Your task to perform on an android device: toggle notifications settings in the gmail app Image 0: 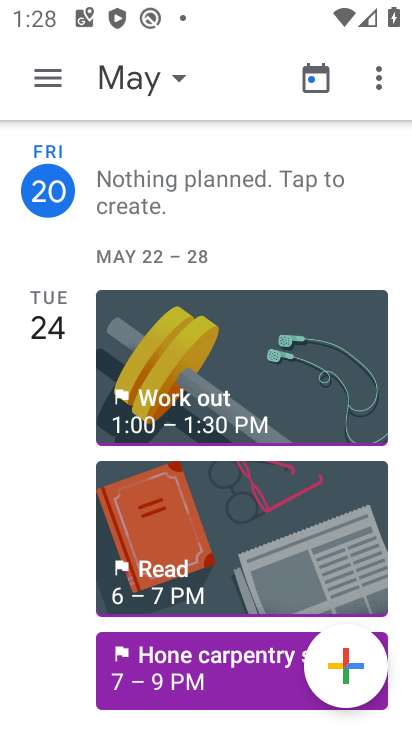
Step 0: drag from (384, 568) to (365, 314)
Your task to perform on an android device: toggle notifications settings in the gmail app Image 1: 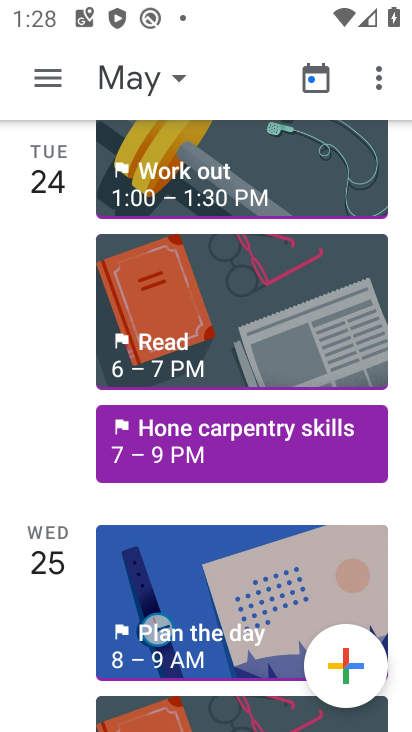
Step 1: press home button
Your task to perform on an android device: toggle notifications settings in the gmail app Image 2: 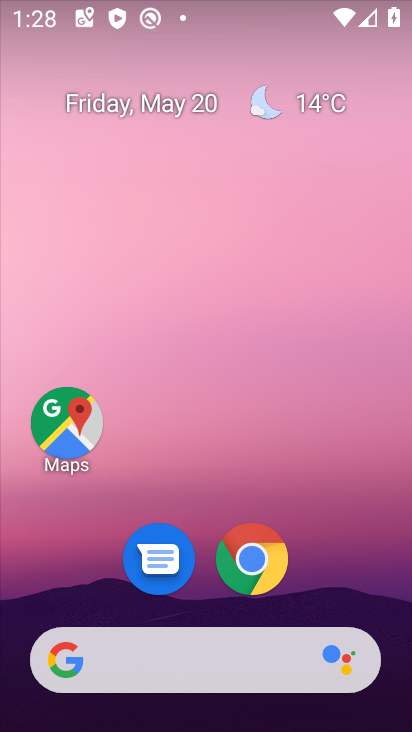
Step 2: drag from (374, 562) to (312, 133)
Your task to perform on an android device: toggle notifications settings in the gmail app Image 3: 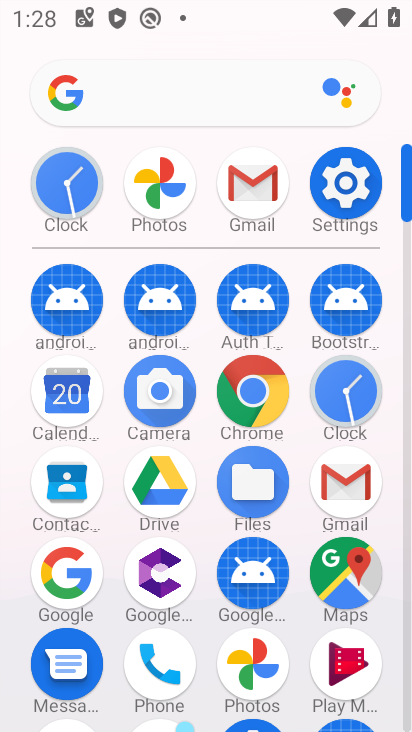
Step 3: click (271, 188)
Your task to perform on an android device: toggle notifications settings in the gmail app Image 4: 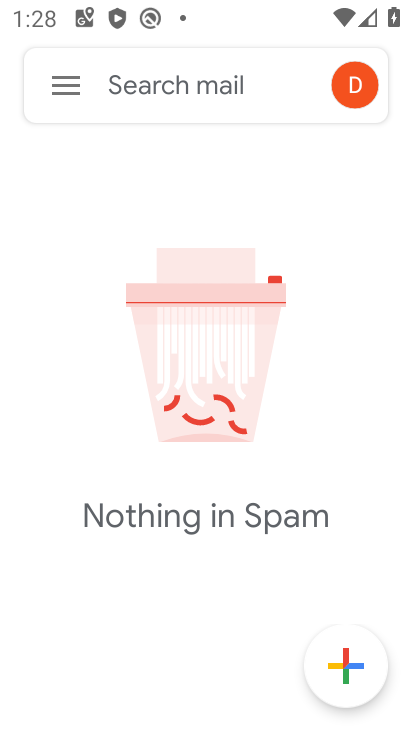
Step 4: click (77, 83)
Your task to perform on an android device: toggle notifications settings in the gmail app Image 5: 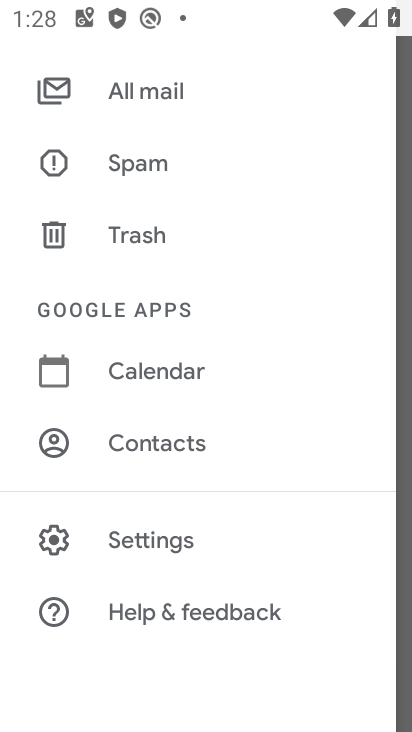
Step 5: click (177, 534)
Your task to perform on an android device: toggle notifications settings in the gmail app Image 6: 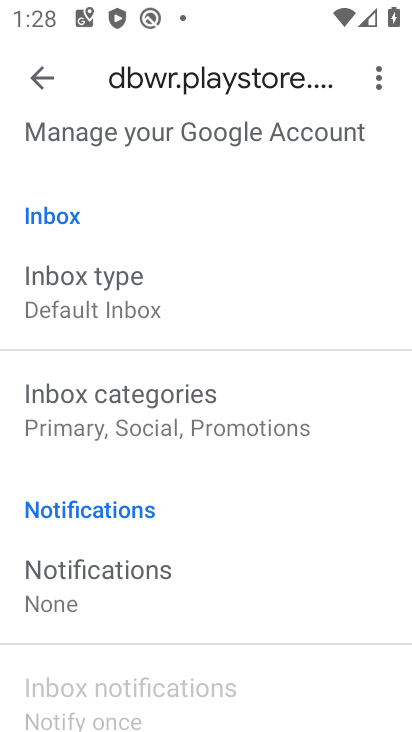
Step 6: drag from (179, 532) to (164, 402)
Your task to perform on an android device: toggle notifications settings in the gmail app Image 7: 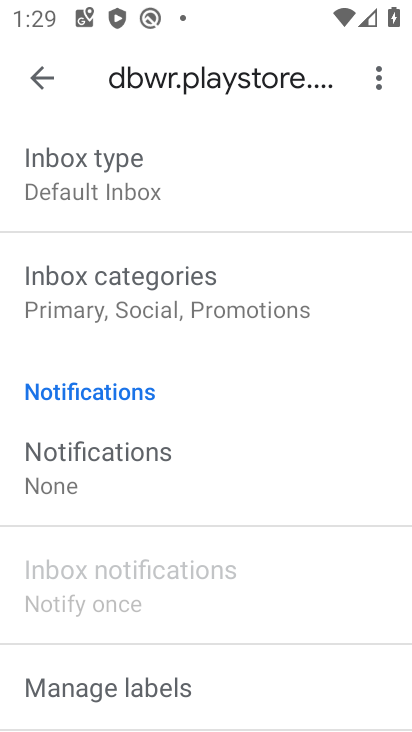
Step 7: click (155, 318)
Your task to perform on an android device: toggle notifications settings in the gmail app Image 8: 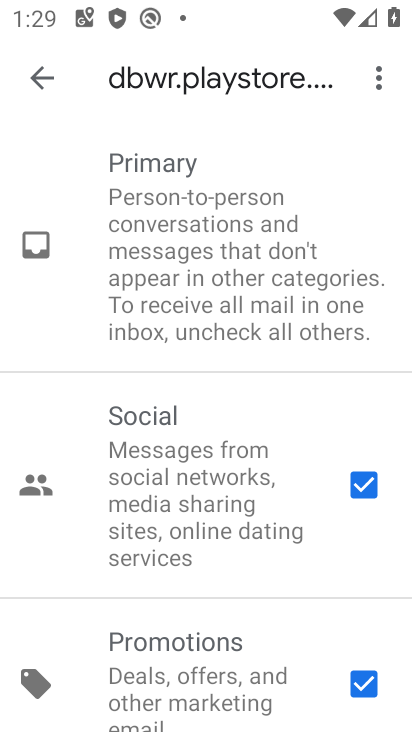
Step 8: task complete